Your task to perform on an android device: Open Chrome and go to the settings page Image 0: 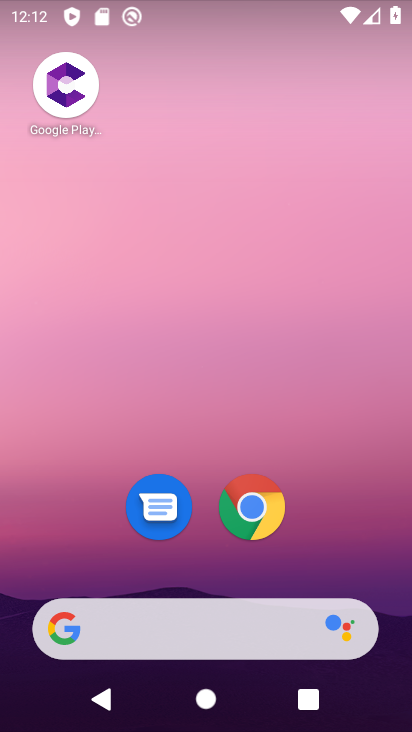
Step 0: click (253, 501)
Your task to perform on an android device: Open Chrome and go to the settings page Image 1: 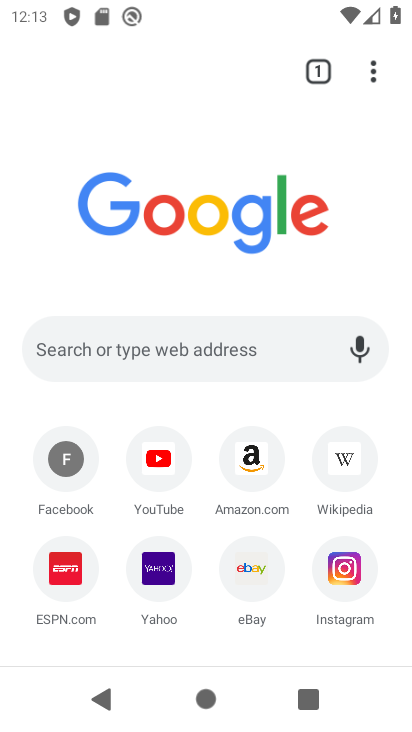
Step 1: click (385, 74)
Your task to perform on an android device: Open Chrome and go to the settings page Image 2: 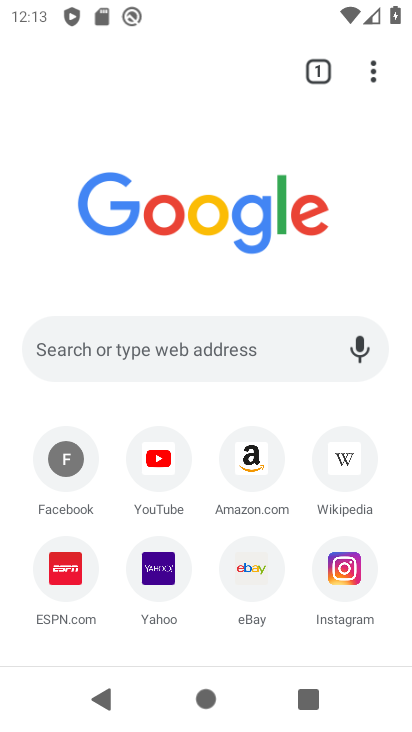
Step 2: task complete